Your task to perform on an android device: see tabs open on other devices in the chrome app Image 0: 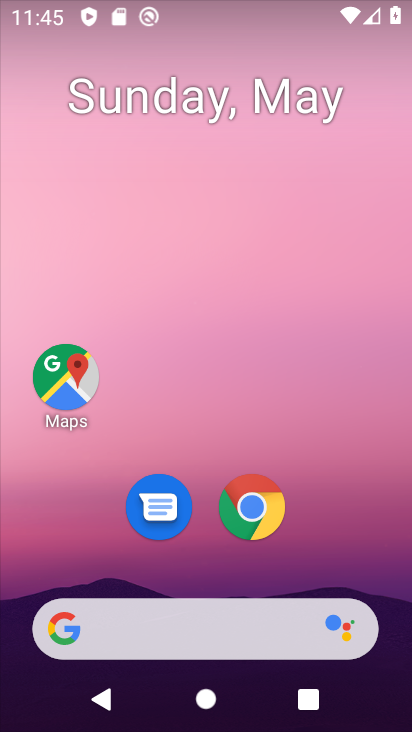
Step 0: click (251, 507)
Your task to perform on an android device: see tabs open on other devices in the chrome app Image 1: 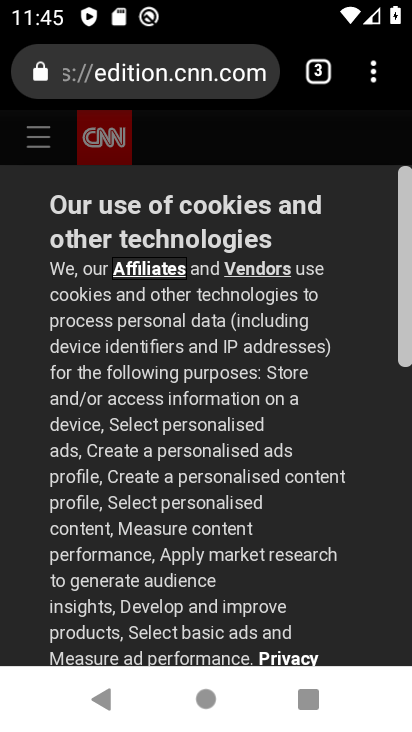
Step 1: click (375, 81)
Your task to perform on an android device: see tabs open on other devices in the chrome app Image 2: 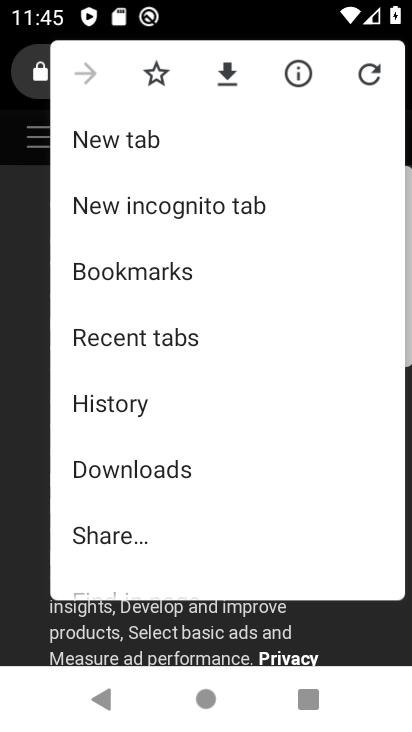
Step 2: click (162, 333)
Your task to perform on an android device: see tabs open on other devices in the chrome app Image 3: 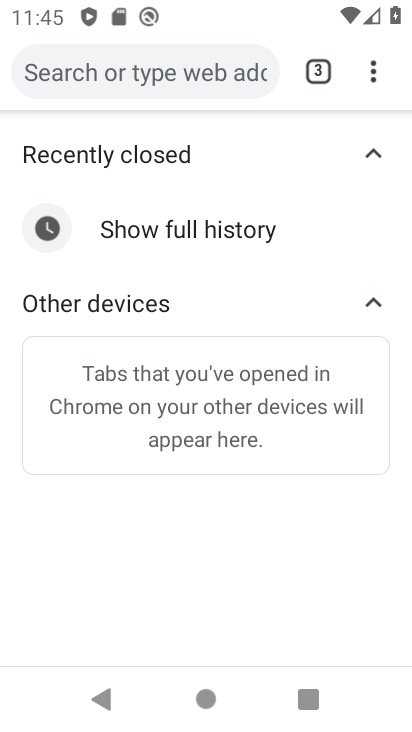
Step 3: task complete